Your task to perform on an android device: turn on wifi Image 0: 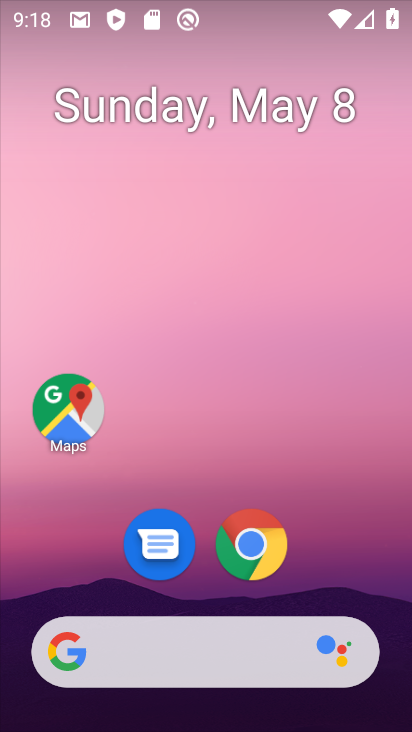
Step 0: drag from (316, 593) to (245, 32)
Your task to perform on an android device: turn on wifi Image 1: 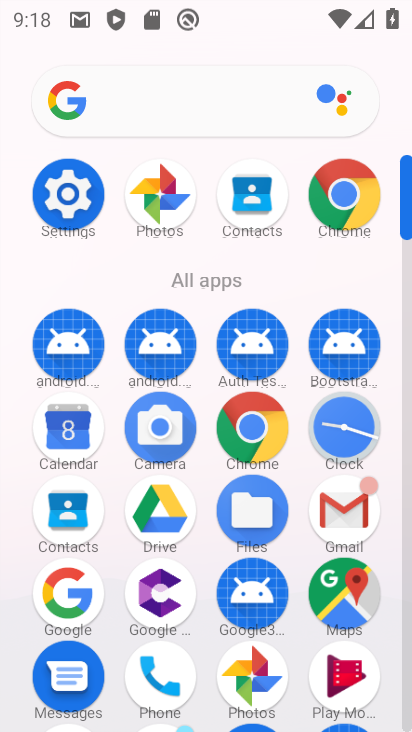
Step 1: click (82, 214)
Your task to perform on an android device: turn on wifi Image 2: 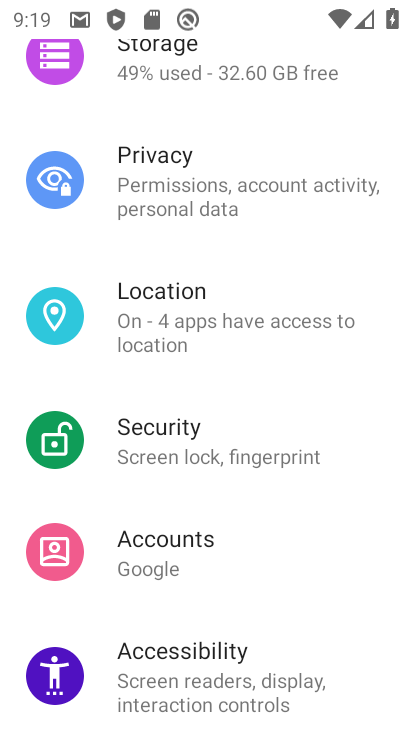
Step 2: drag from (178, 248) to (146, 474)
Your task to perform on an android device: turn on wifi Image 3: 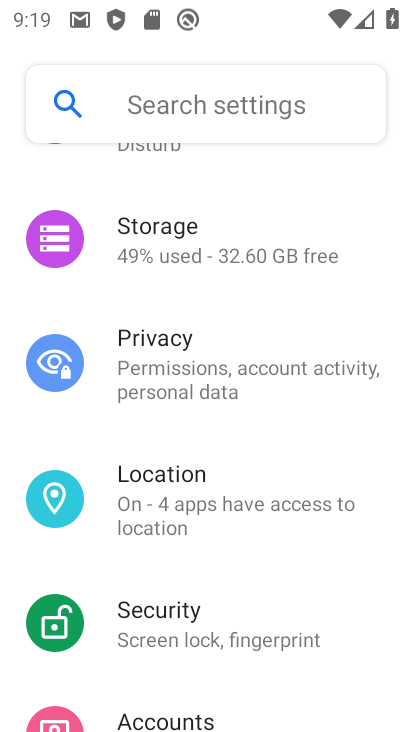
Step 3: drag from (293, 287) to (262, 683)
Your task to perform on an android device: turn on wifi Image 4: 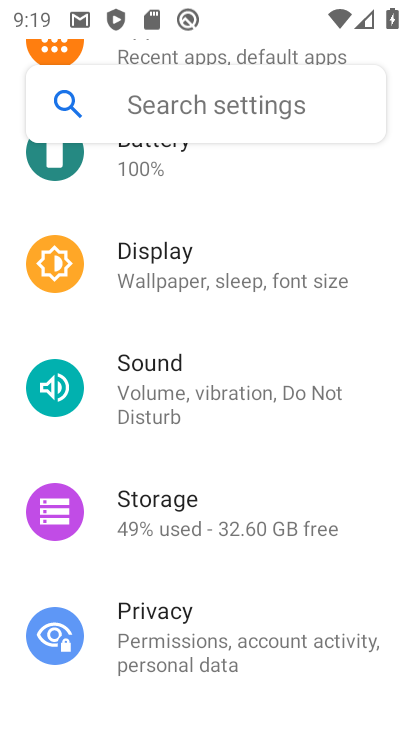
Step 4: drag from (293, 262) to (244, 606)
Your task to perform on an android device: turn on wifi Image 5: 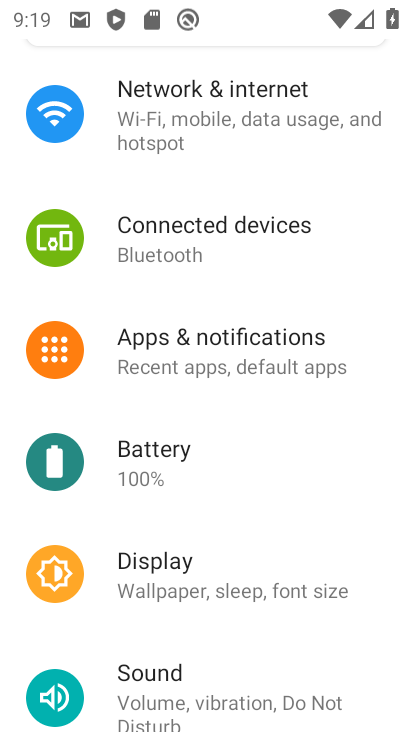
Step 5: click (249, 209)
Your task to perform on an android device: turn on wifi Image 6: 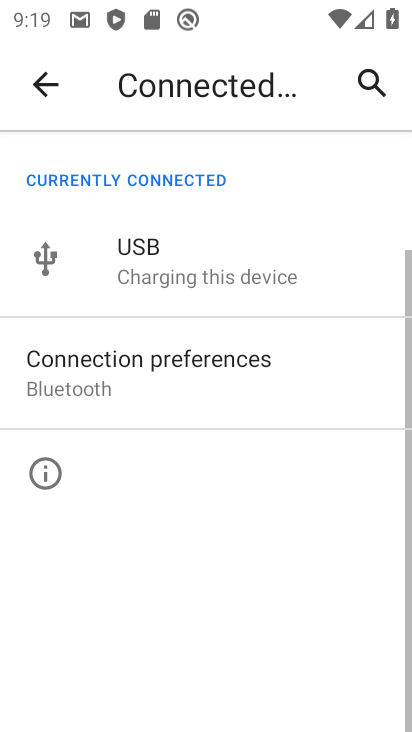
Step 6: click (37, 81)
Your task to perform on an android device: turn on wifi Image 7: 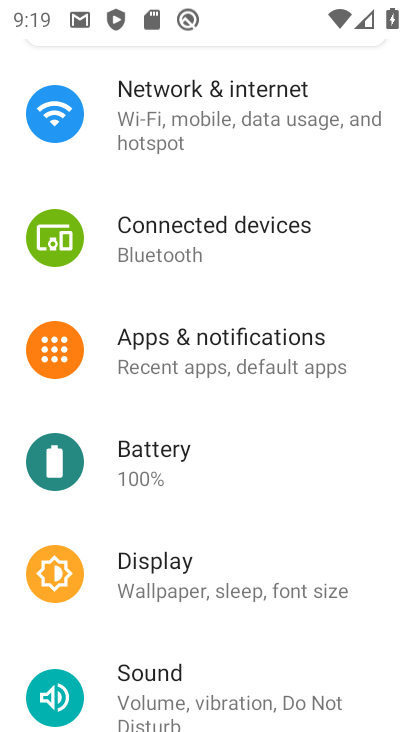
Step 7: click (267, 154)
Your task to perform on an android device: turn on wifi Image 8: 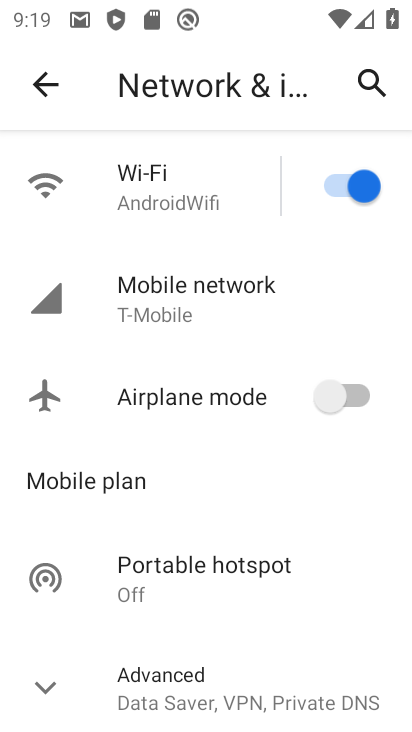
Step 8: task complete